Your task to perform on an android device: Google the capital of Brazil Image 0: 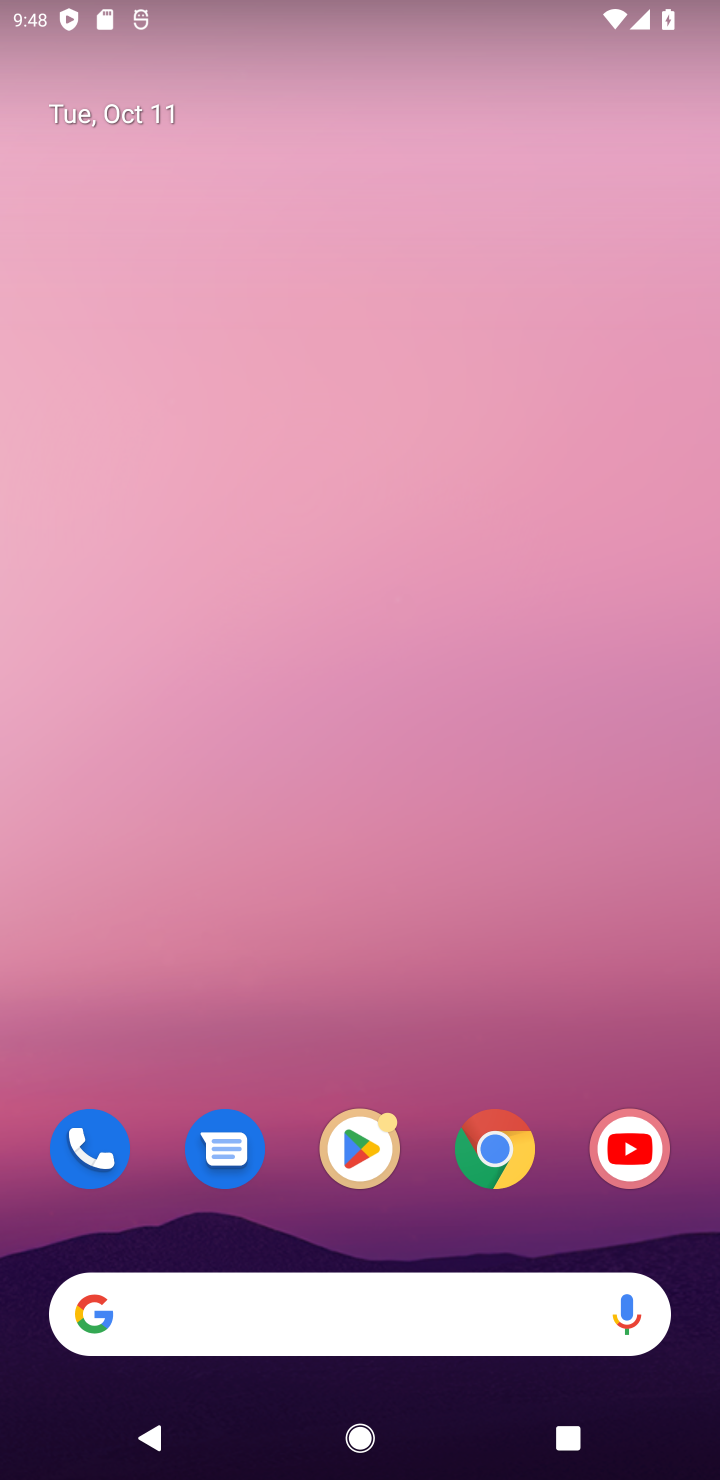
Step 0: drag from (380, 994) to (470, 39)
Your task to perform on an android device: Google the capital of Brazil Image 1: 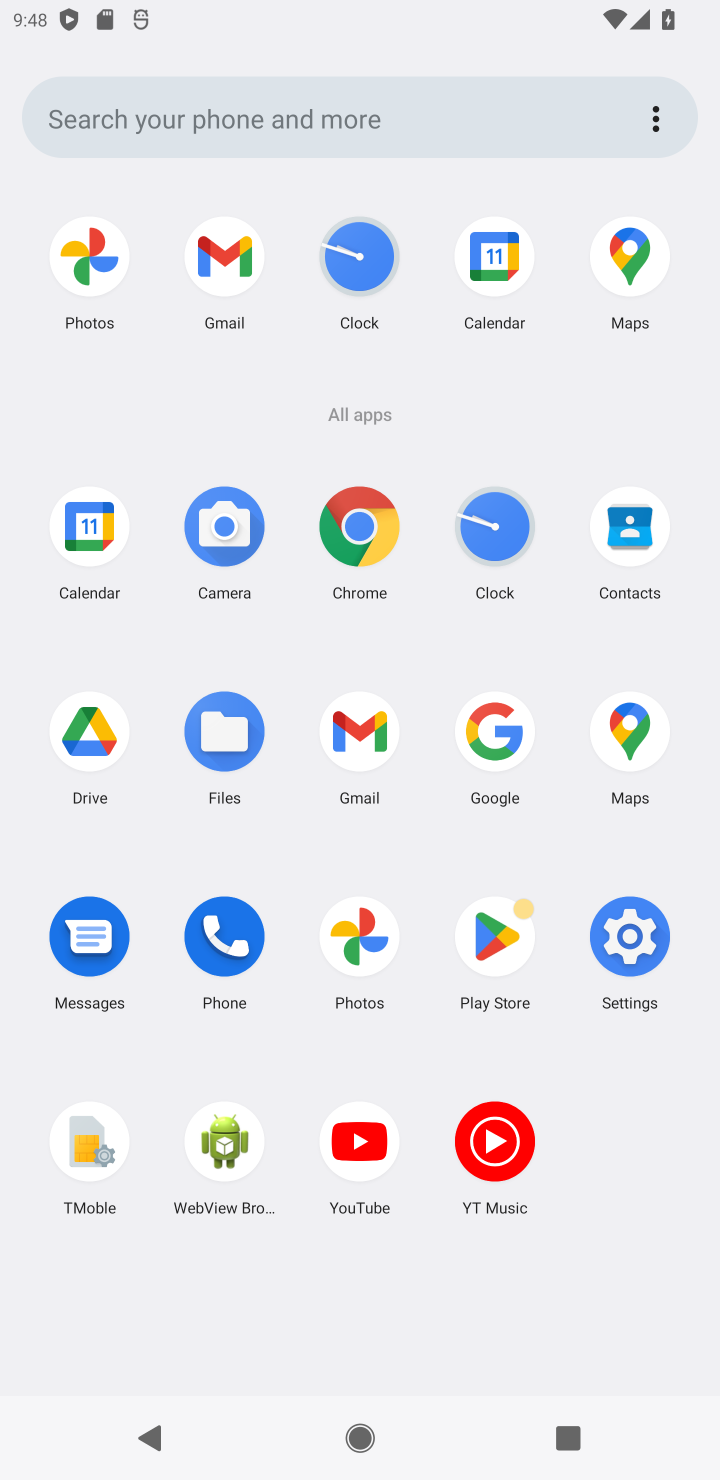
Step 1: click (358, 541)
Your task to perform on an android device: Google the capital of Brazil Image 2: 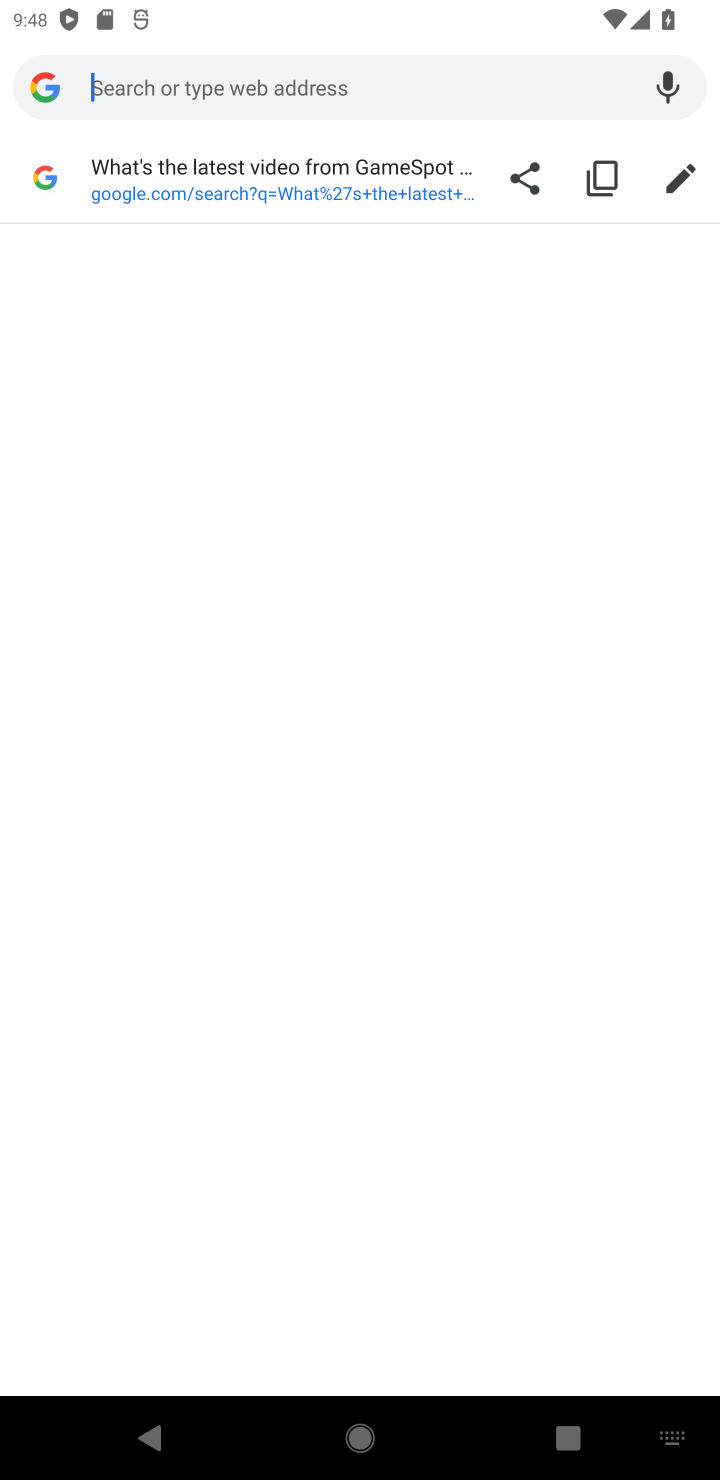
Step 2: press enter
Your task to perform on an android device: Google the capital of Brazil Image 3: 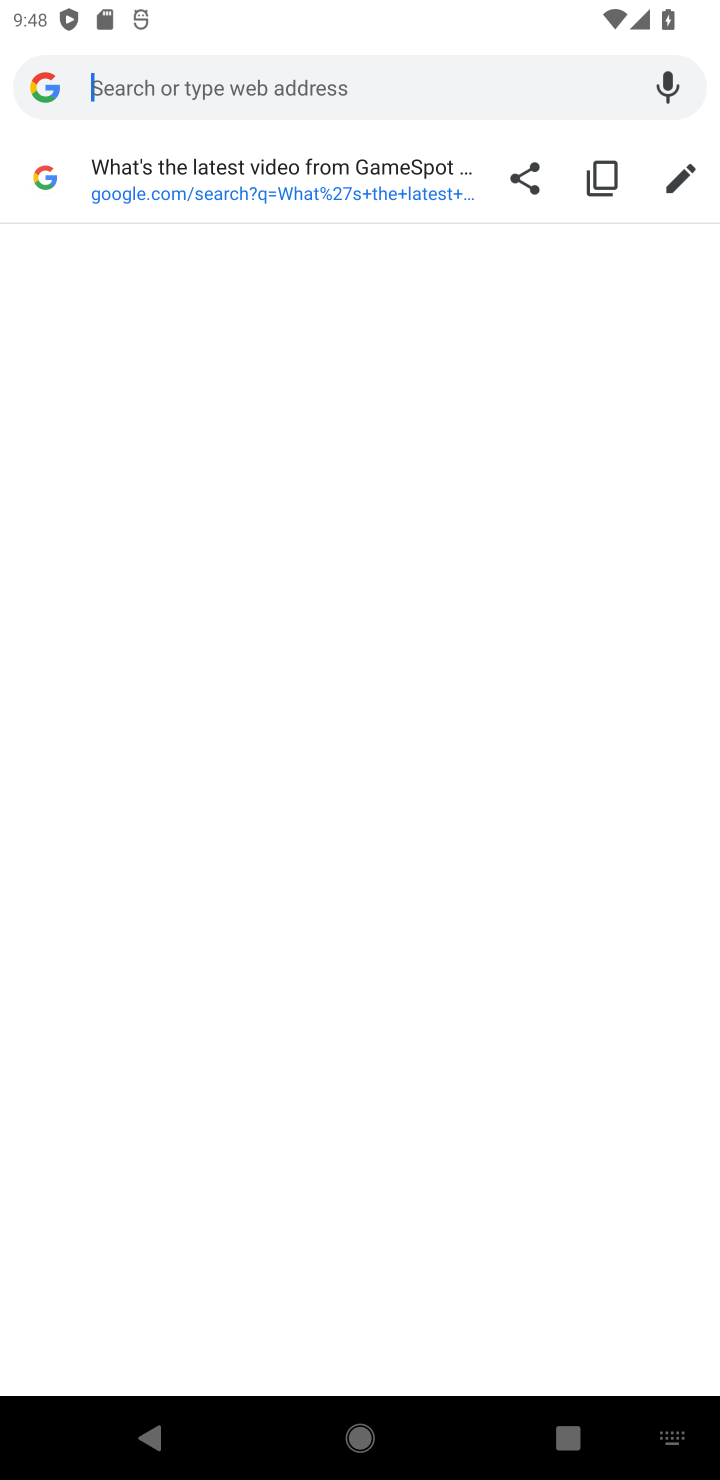
Step 3: type "Google the capital of Brazil"
Your task to perform on an android device: Google the capital of Brazil Image 4: 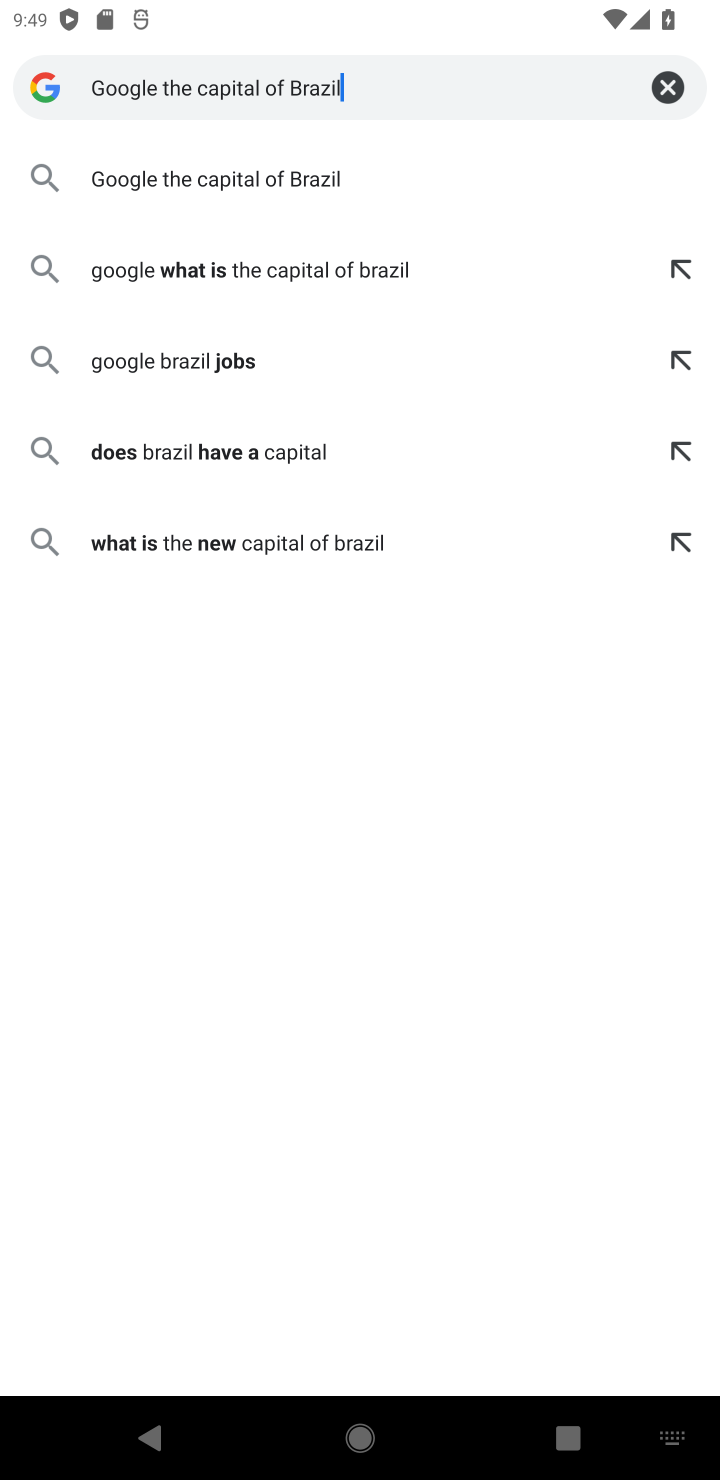
Step 4: press enter
Your task to perform on an android device: Google the capital of Brazil Image 5: 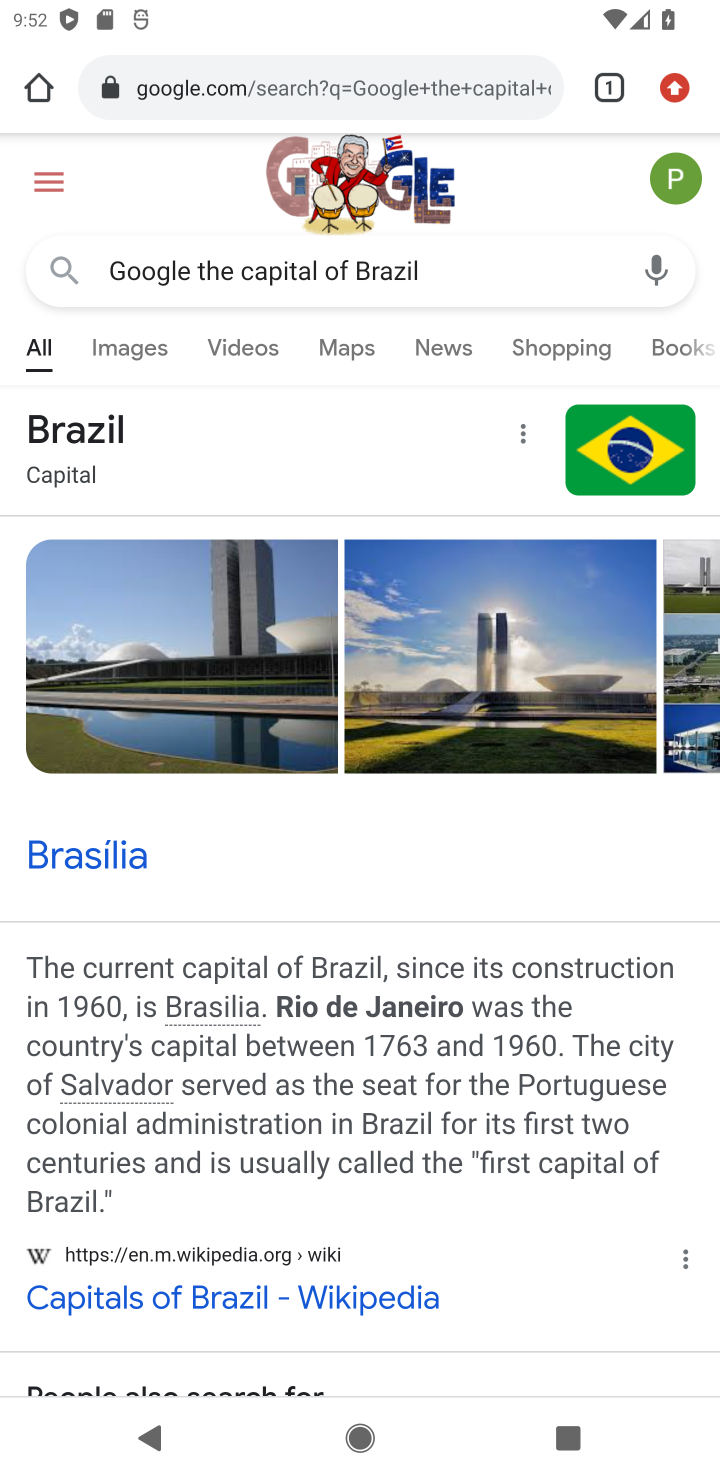
Step 5: task complete